Your task to perform on an android device: show emergency info Image 0: 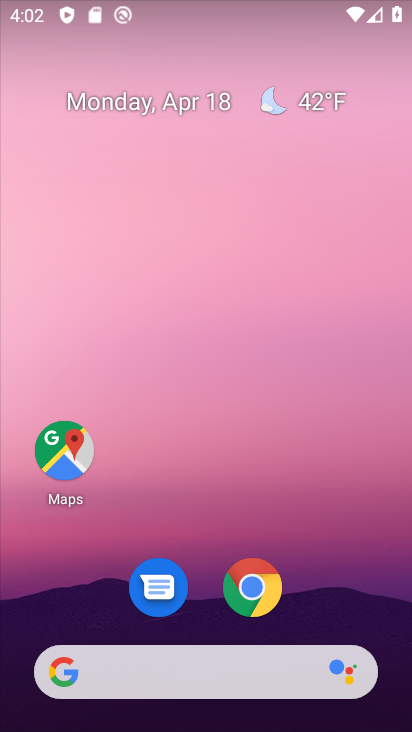
Step 0: drag from (189, 632) to (315, 143)
Your task to perform on an android device: show emergency info Image 1: 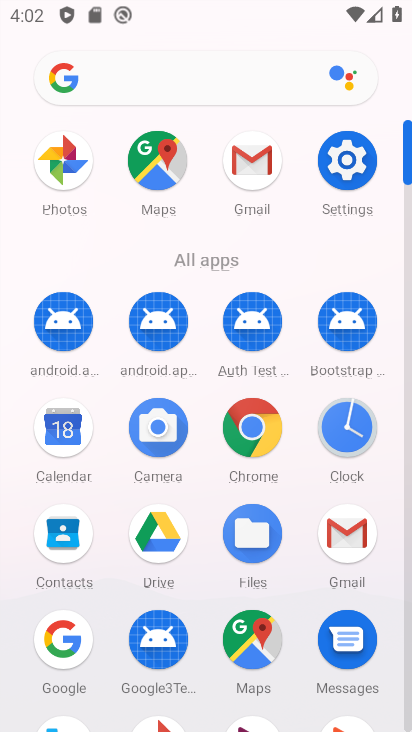
Step 1: drag from (172, 602) to (263, 277)
Your task to perform on an android device: show emergency info Image 2: 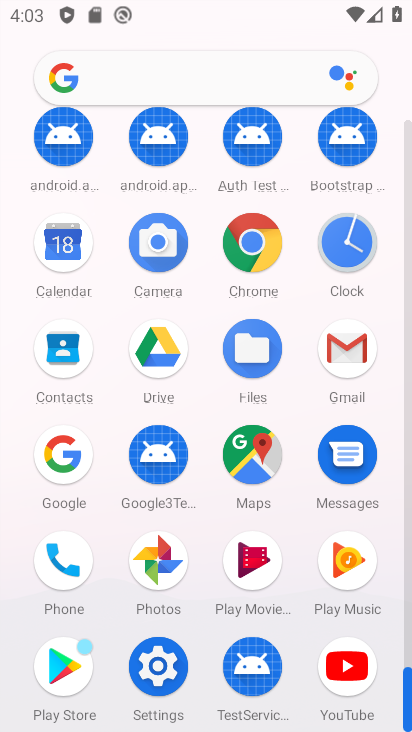
Step 2: click (186, 663)
Your task to perform on an android device: show emergency info Image 3: 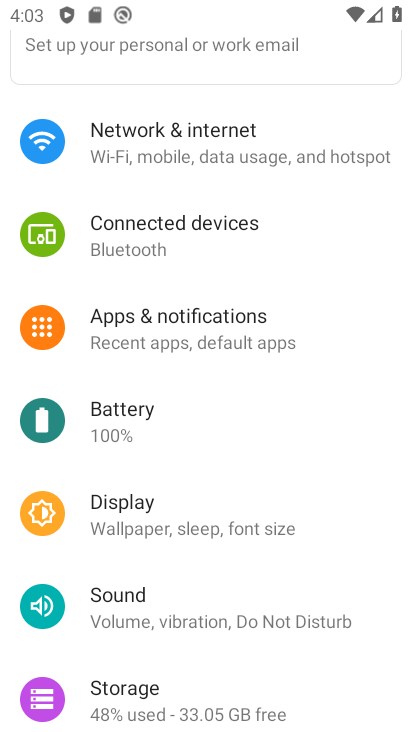
Step 3: drag from (155, 619) to (306, 126)
Your task to perform on an android device: show emergency info Image 4: 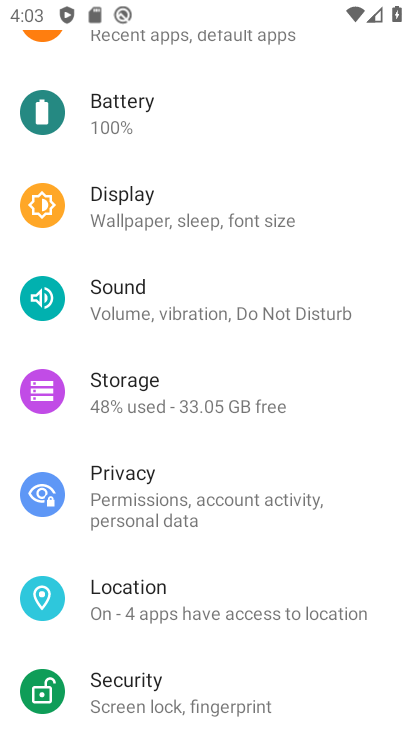
Step 4: drag from (220, 637) to (344, 147)
Your task to perform on an android device: show emergency info Image 5: 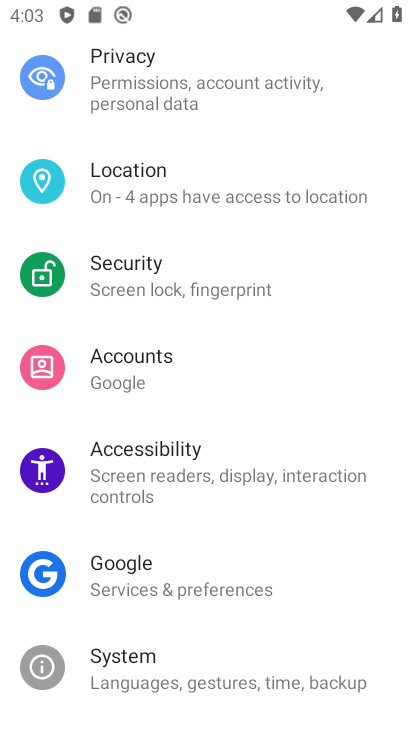
Step 5: drag from (196, 577) to (292, 154)
Your task to perform on an android device: show emergency info Image 6: 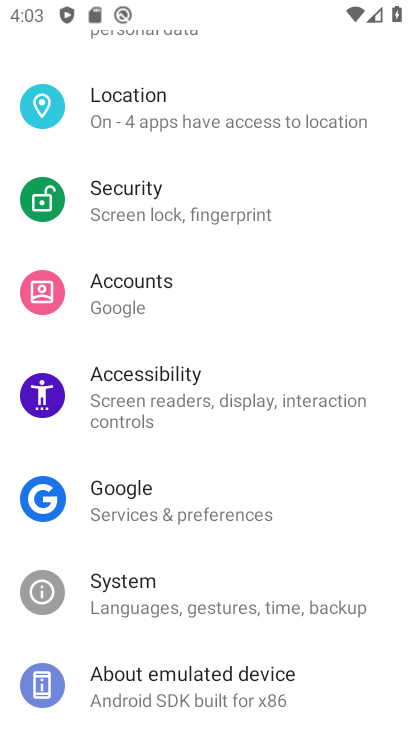
Step 6: click (222, 689)
Your task to perform on an android device: show emergency info Image 7: 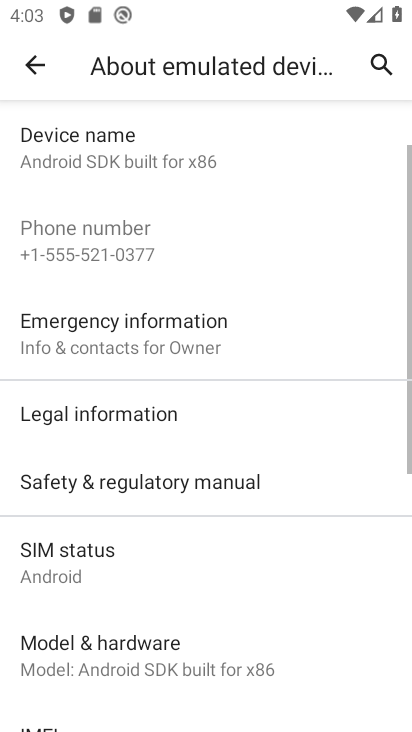
Step 7: click (195, 342)
Your task to perform on an android device: show emergency info Image 8: 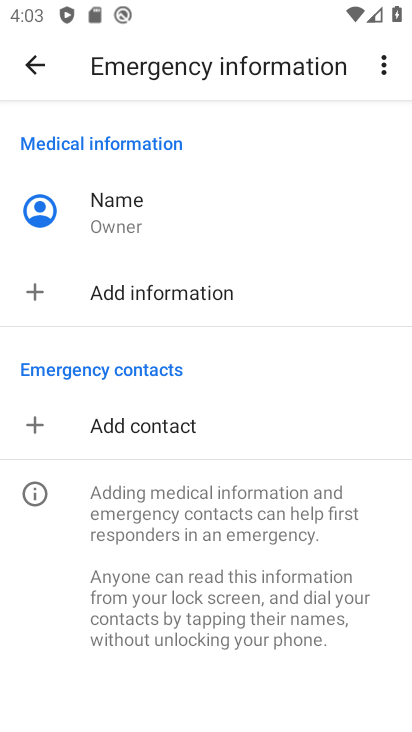
Step 8: task complete